Your task to perform on an android device: Open location settings Image 0: 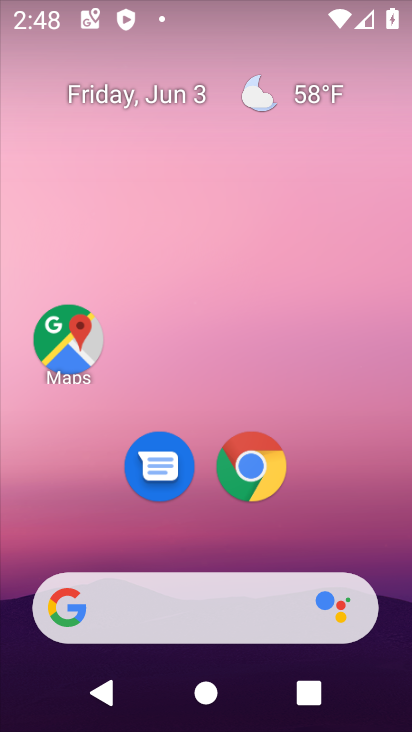
Step 0: click (262, 468)
Your task to perform on an android device: Open location settings Image 1: 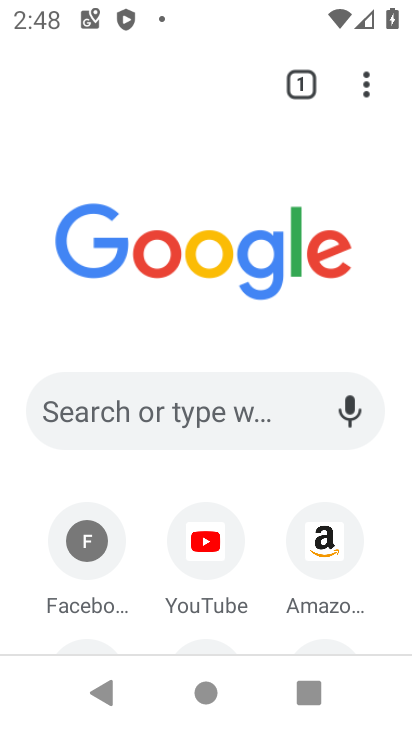
Step 1: press home button
Your task to perform on an android device: Open location settings Image 2: 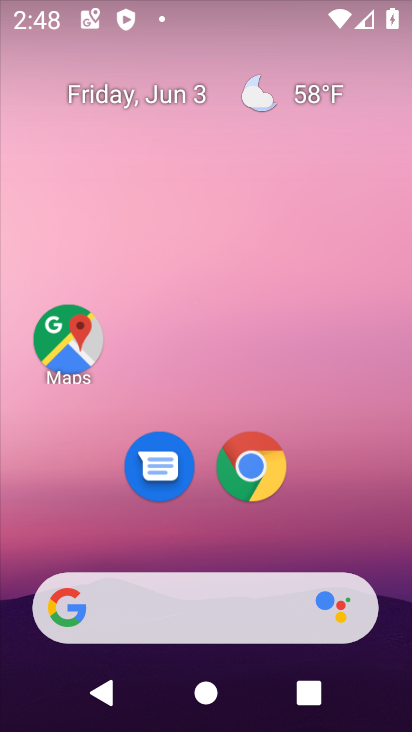
Step 2: drag from (364, 506) to (289, 140)
Your task to perform on an android device: Open location settings Image 3: 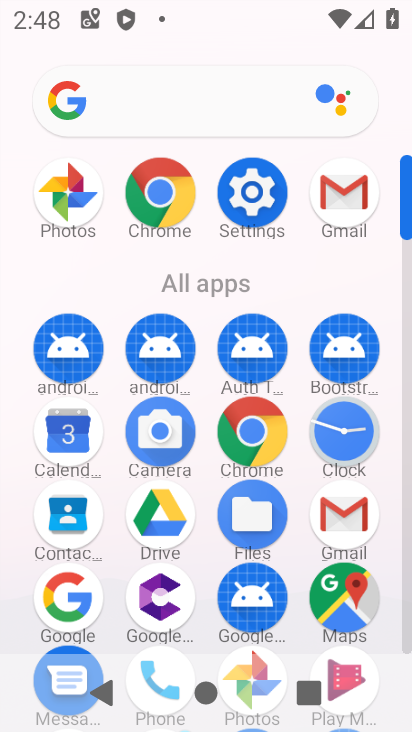
Step 3: click (271, 191)
Your task to perform on an android device: Open location settings Image 4: 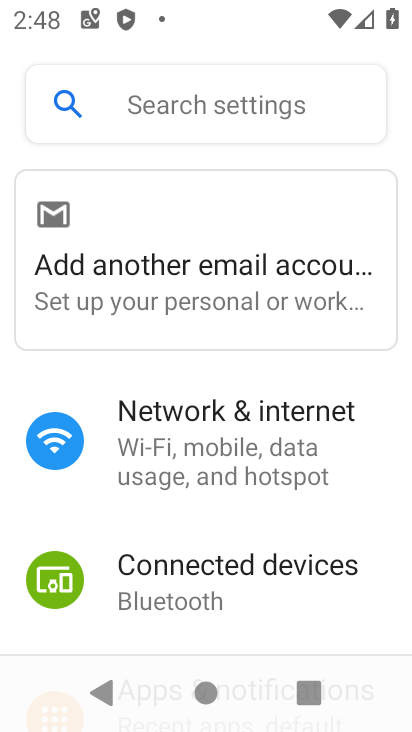
Step 4: drag from (352, 607) to (328, 355)
Your task to perform on an android device: Open location settings Image 5: 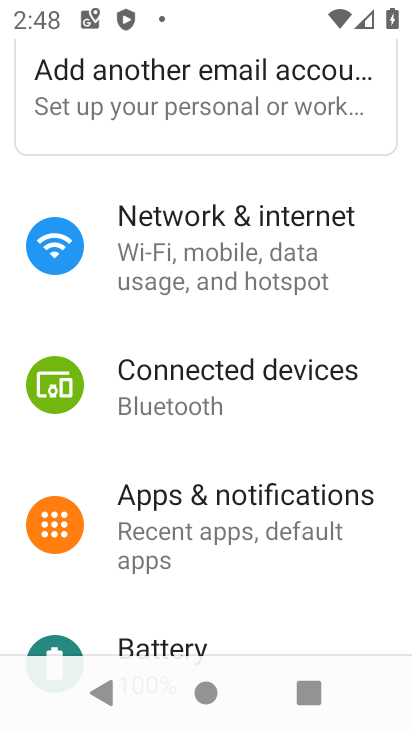
Step 5: drag from (321, 534) to (318, 170)
Your task to perform on an android device: Open location settings Image 6: 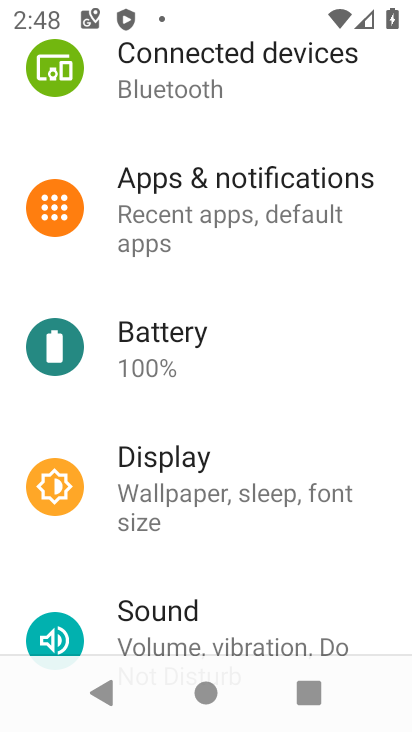
Step 6: drag from (264, 432) to (265, 156)
Your task to perform on an android device: Open location settings Image 7: 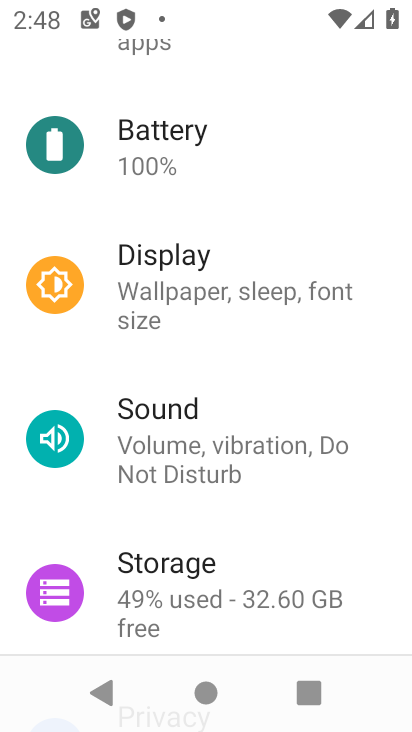
Step 7: drag from (232, 545) to (295, 132)
Your task to perform on an android device: Open location settings Image 8: 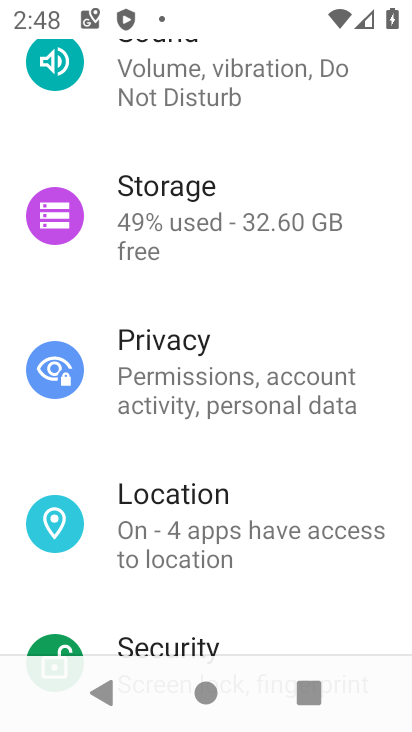
Step 8: click (260, 527)
Your task to perform on an android device: Open location settings Image 9: 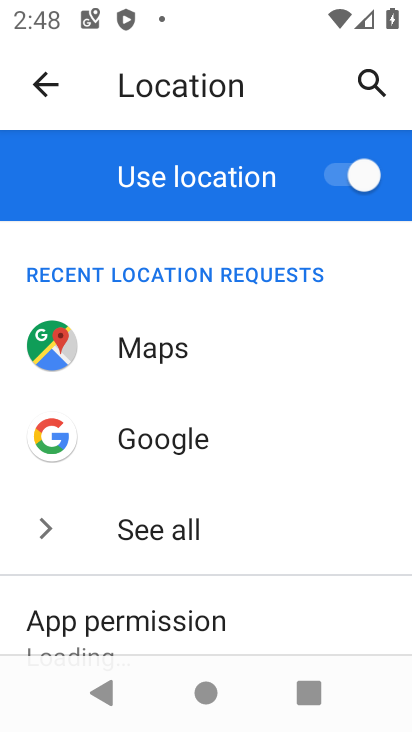
Step 9: task complete